Your task to perform on an android device: Go to display settings Image 0: 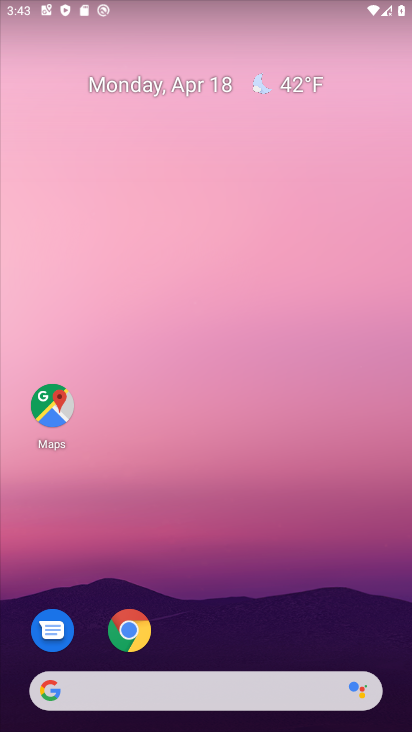
Step 0: click (255, 303)
Your task to perform on an android device: Go to display settings Image 1: 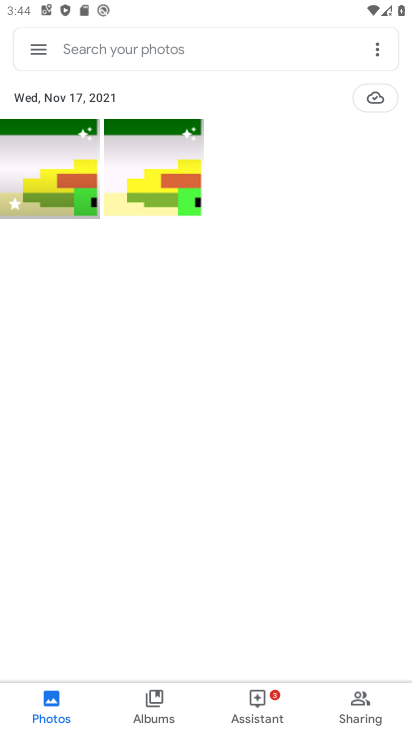
Step 1: press home button
Your task to perform on an android device: Go to display settings Image 2: 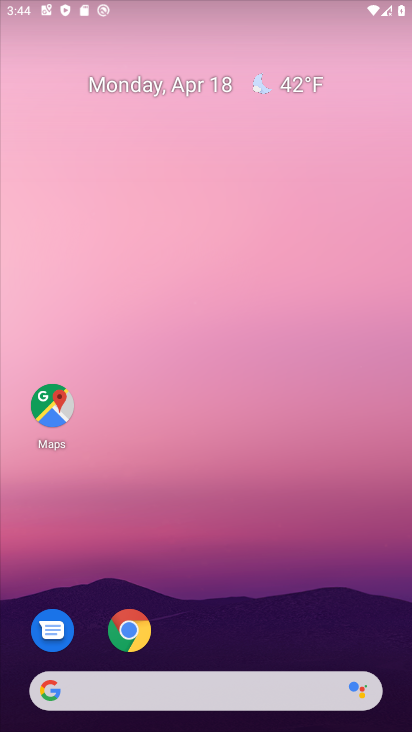
Step 2: drag from (244, 624) to (266, 304)
Your task to perform on an android device: Go to display settings Image 3: 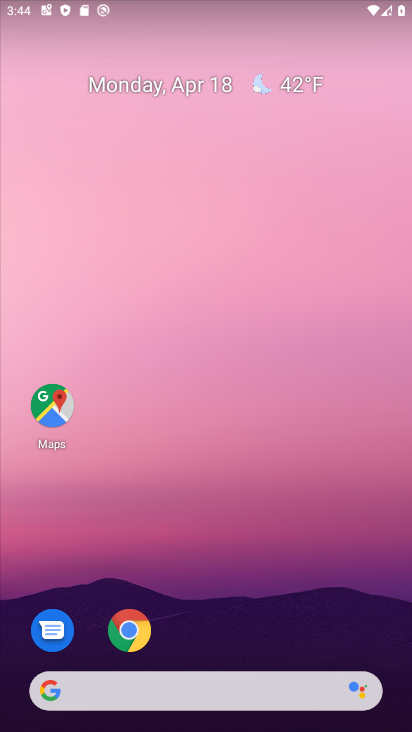
Step 3: drag from (256, 560) to (297, 239)
Your task to perform on an android device: Go to display settings Image 4: 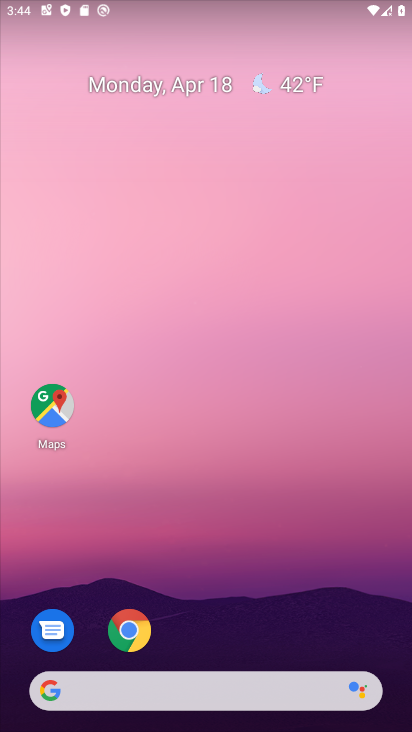
Step 4: drag from (255, 660) to (313, 243)
Your task to perform on an android device: Go to display settings Image 5: 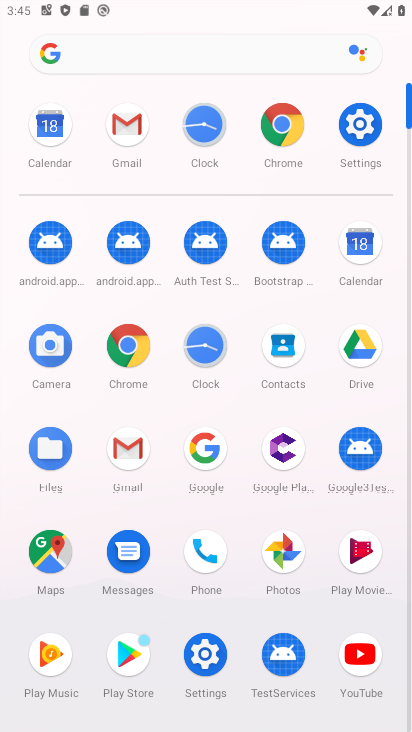
Step 5: click (346, 129)
Your task to perform on an android device: Go to display settings Image 6: 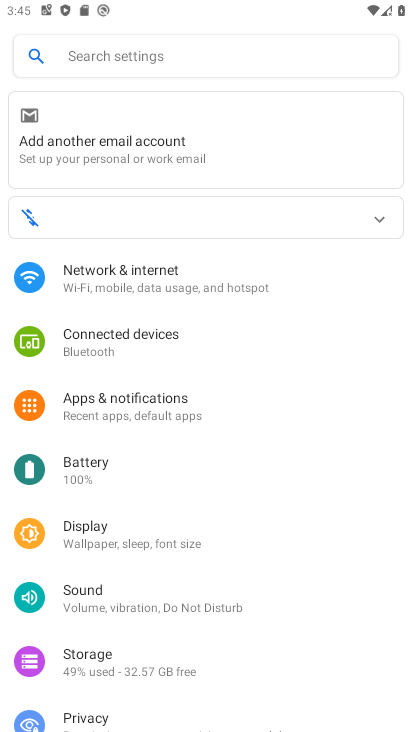
Step 6: click (117, 535)
Your task to perform on an android device: Go to display settings Image 7: 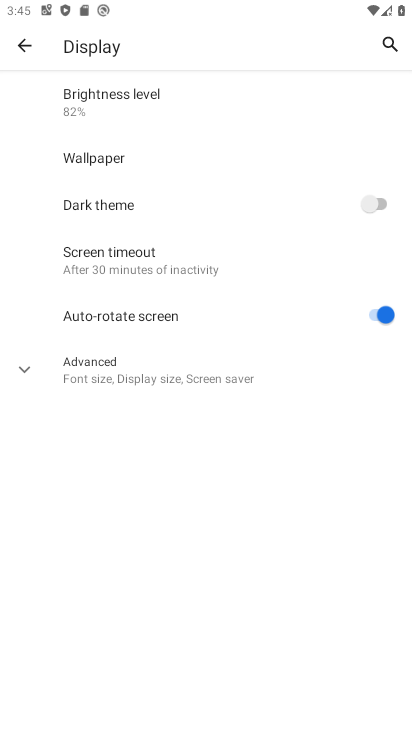
Step 7: task complete